Your task to perform on an android device: install app "Pandora - Music & Podcasts" Image 0: 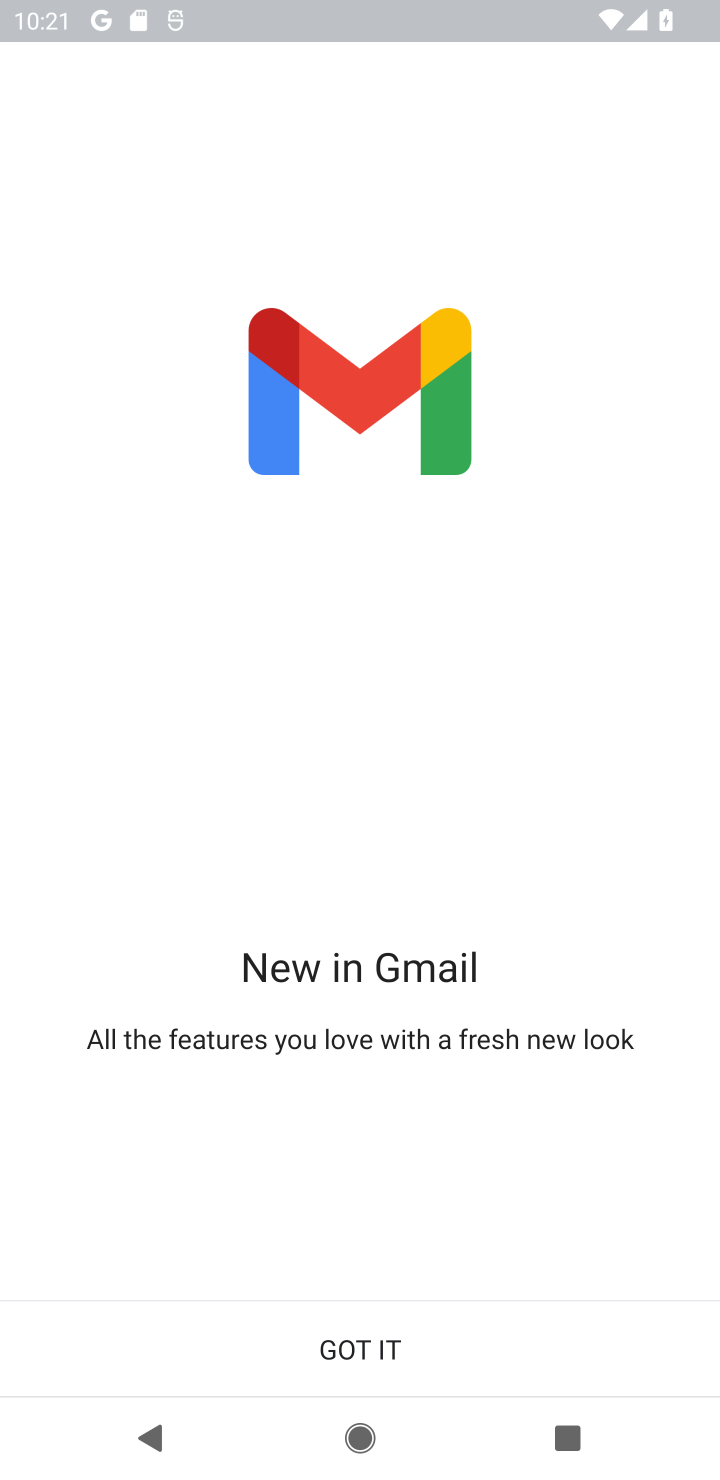
Step 0: press back button
Your task to perform on an android device: install app "Pandora - Music & Podcasts" Image 1: 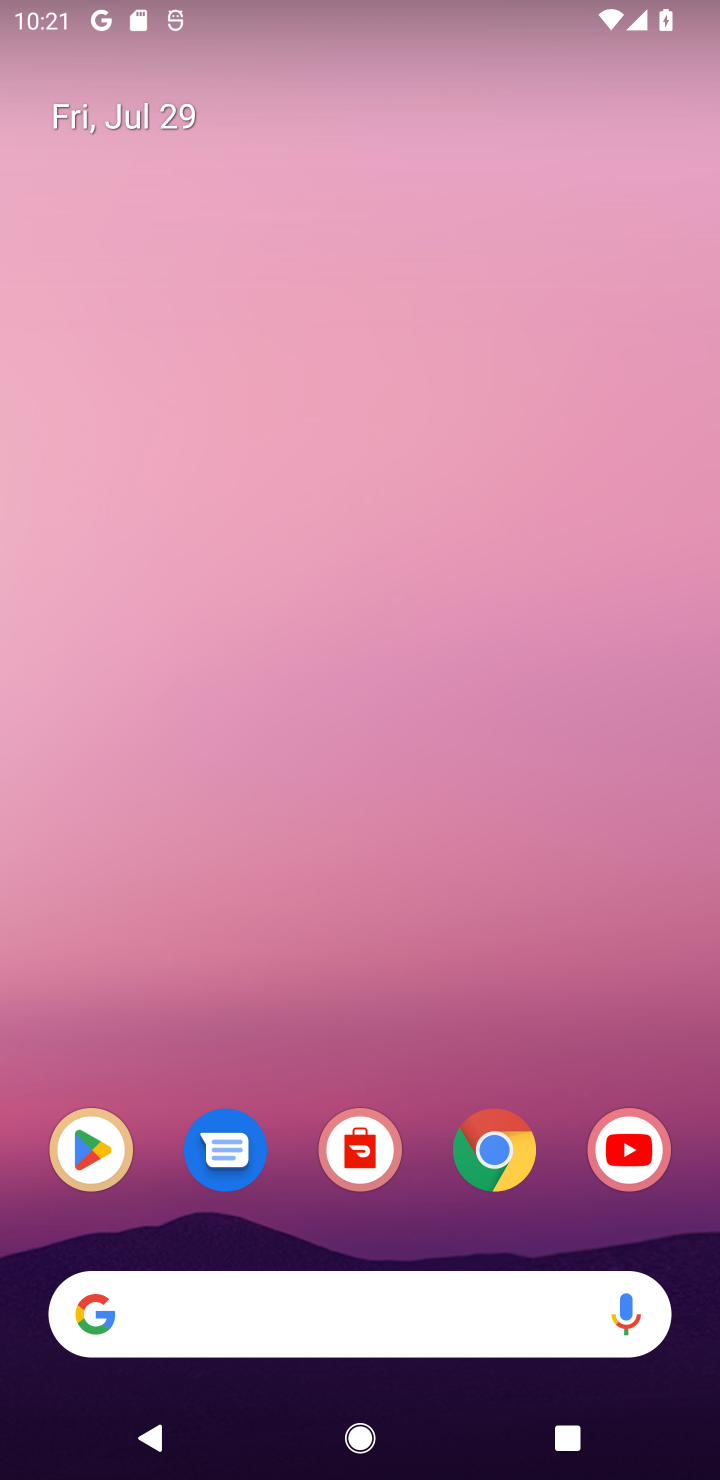
Step 1: press back button
Your task to perform on an android device: install app "Pandora - Music & Podcasts" Image 2: 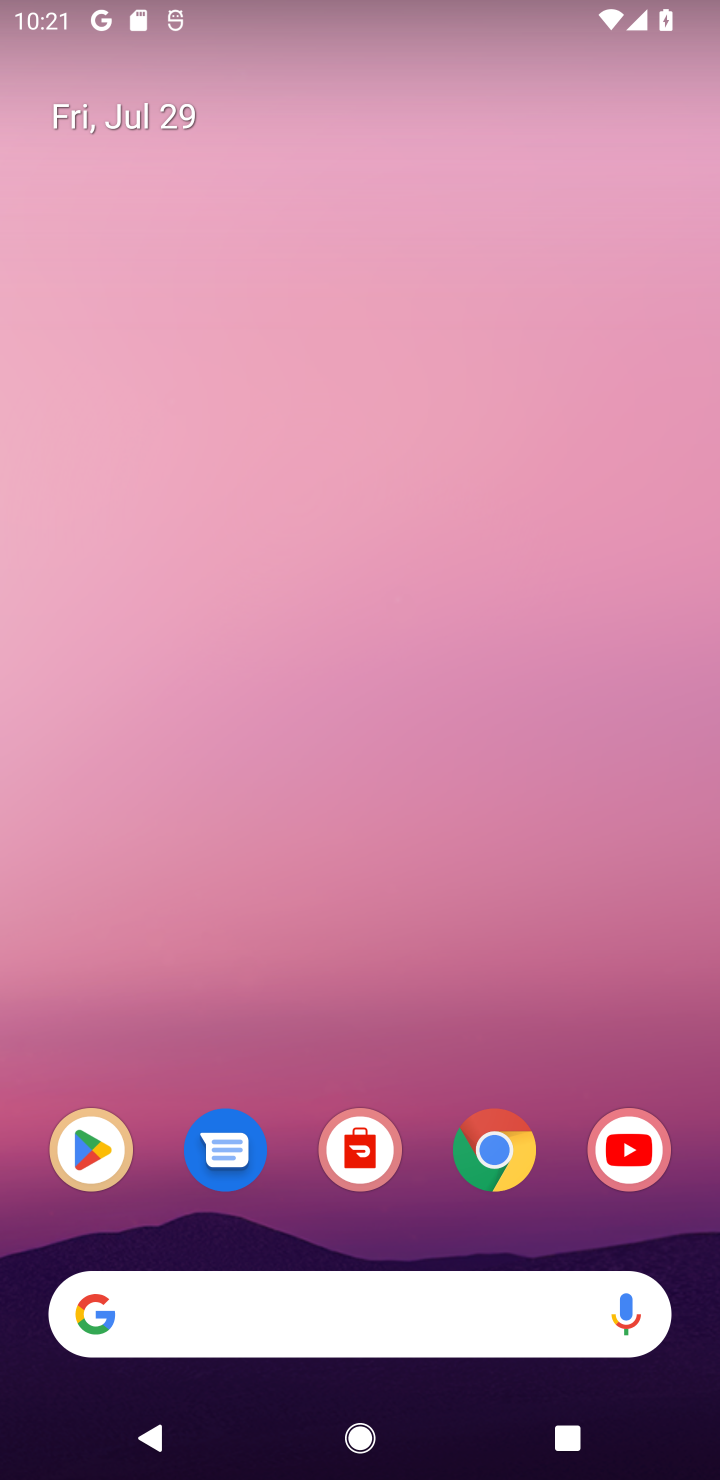
Step 2: click (85, 1174)
Your task to perform on an android device: install app "Pandora - Music & Podcasts" Image 3: 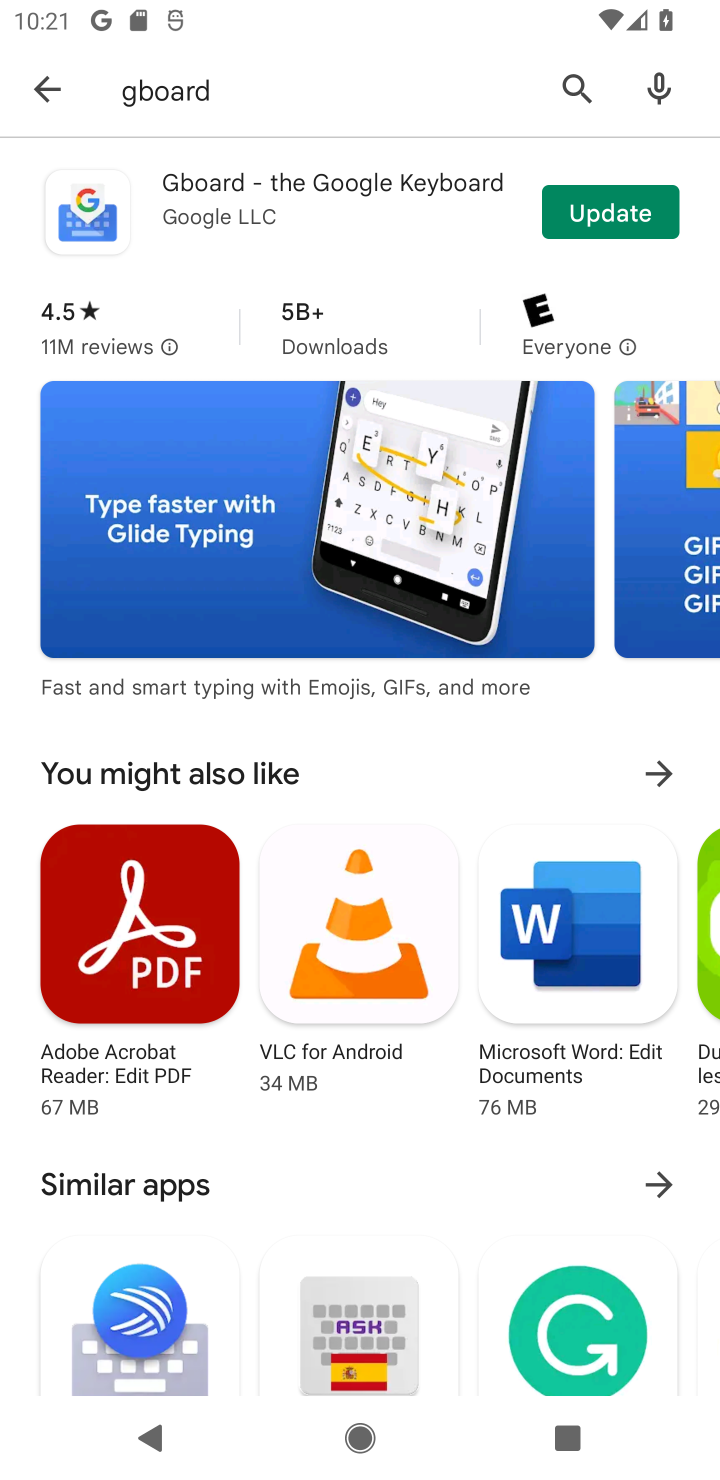
Step 3: click (572, 65)
Your task to perform on an android device: install app "Pandora - Music & Podcasts" Image 4: 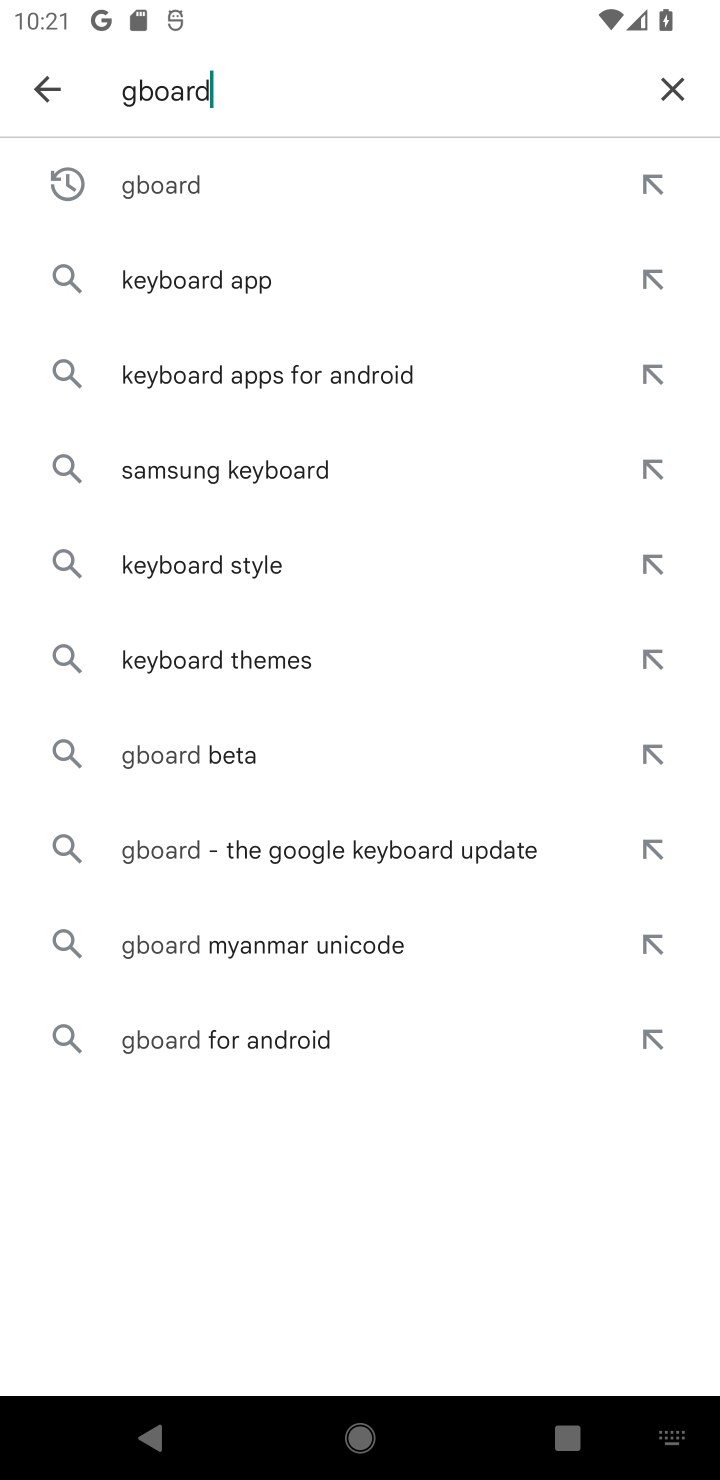
Step 4: click (685, 75)
Your task to perform on an android device: install app "Pandora - Music & Podcasts" Image 5: 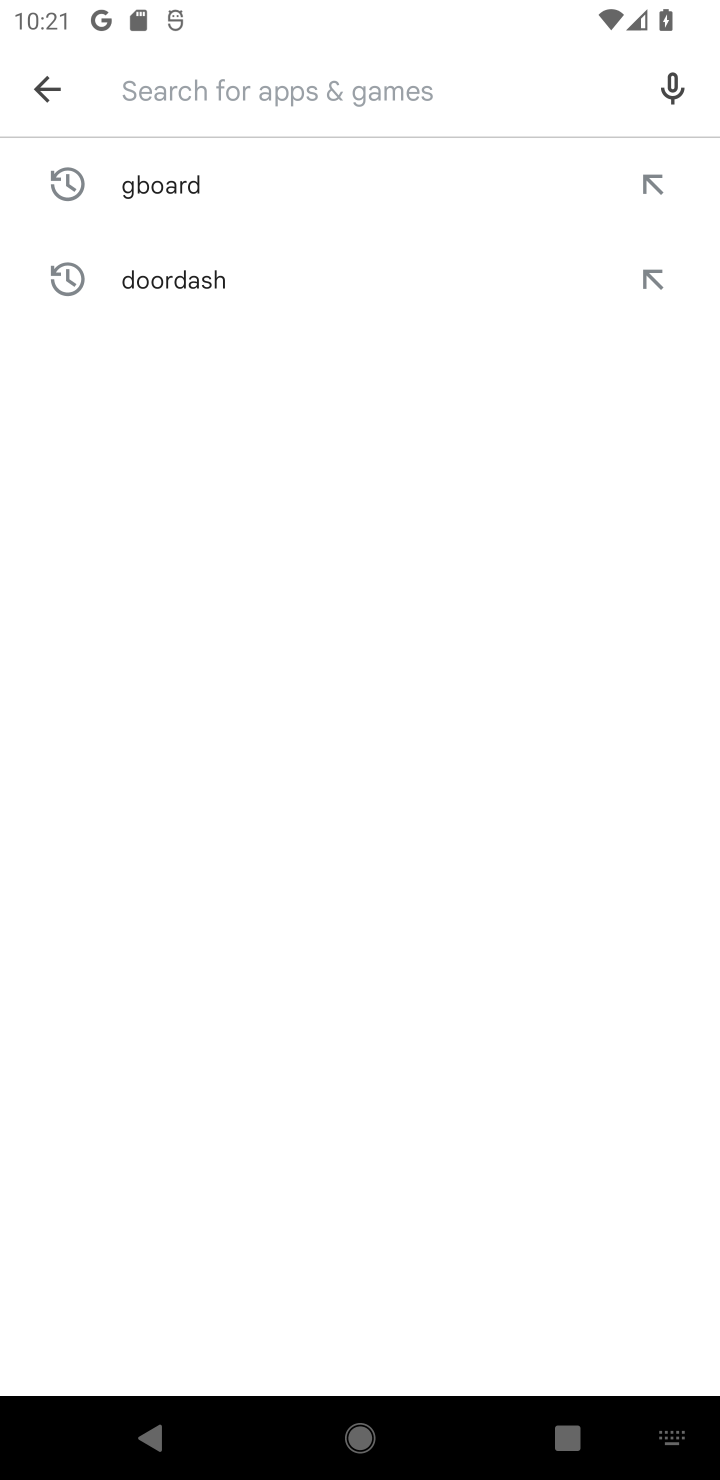
Step 5: click (184, 100)
Your task to perform on an android device: install app "Pandora - Music & Podcasts" Image 6: 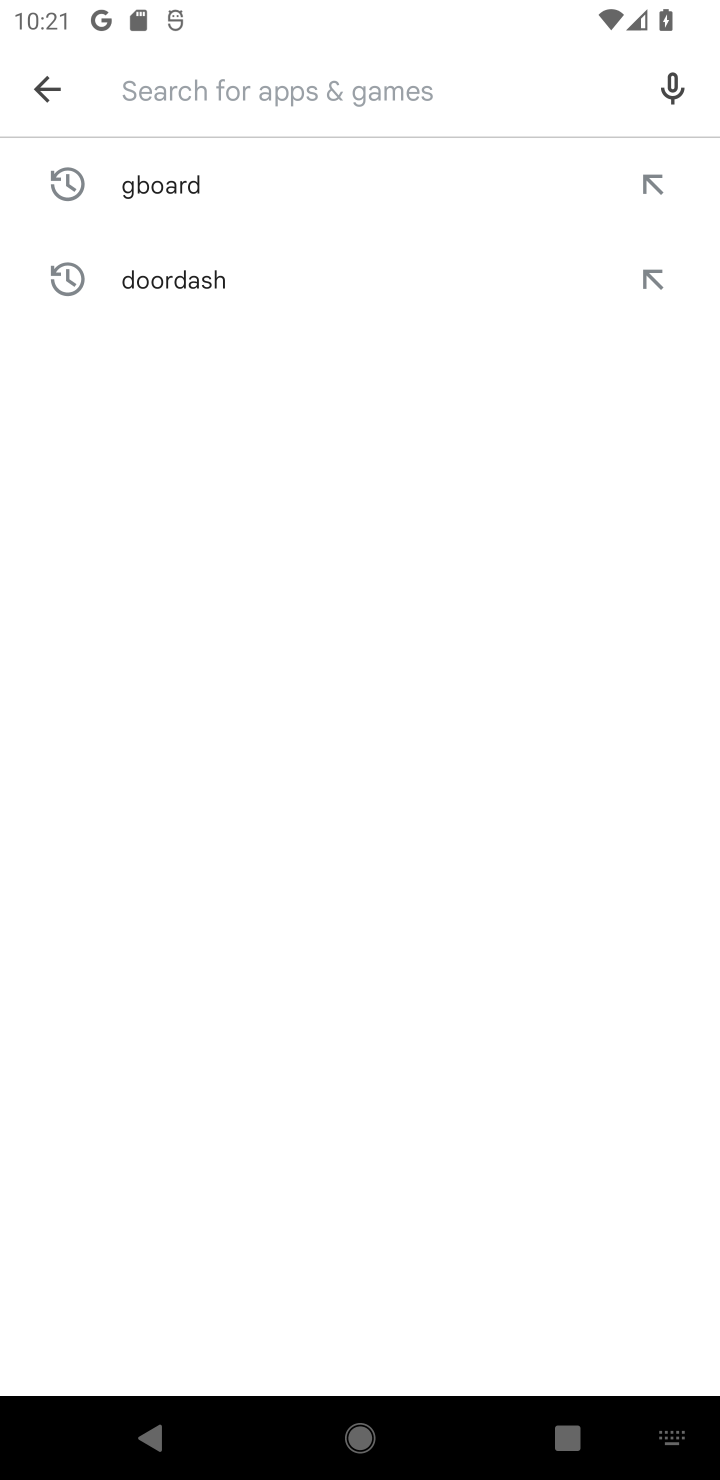
Step 6: type "pandora"
Your task to perform on an android device: install app "Pandora - Music & Podcasts" Image 7: 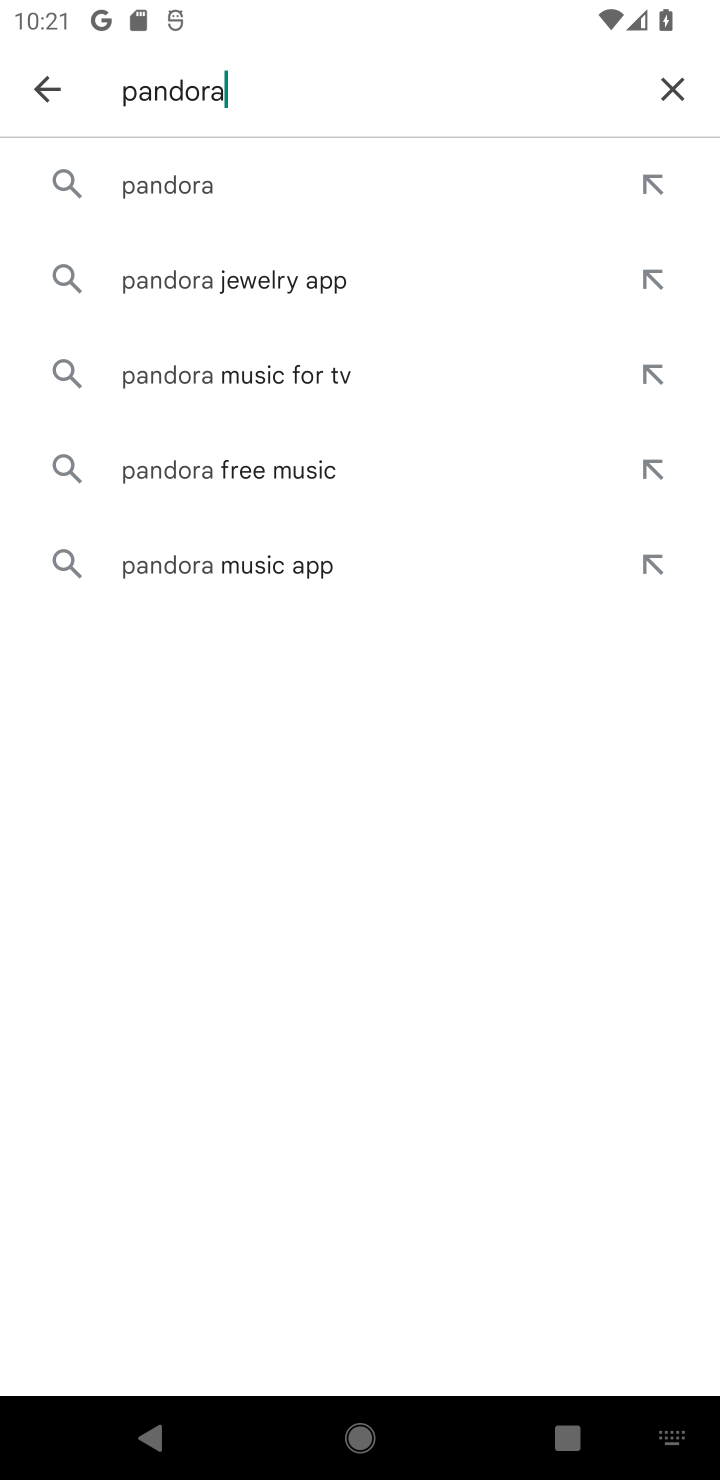
Step 7: click (172, 170)
Your task to perform on an android device: install app "Pandora - Music & Podcasts" Image 8: 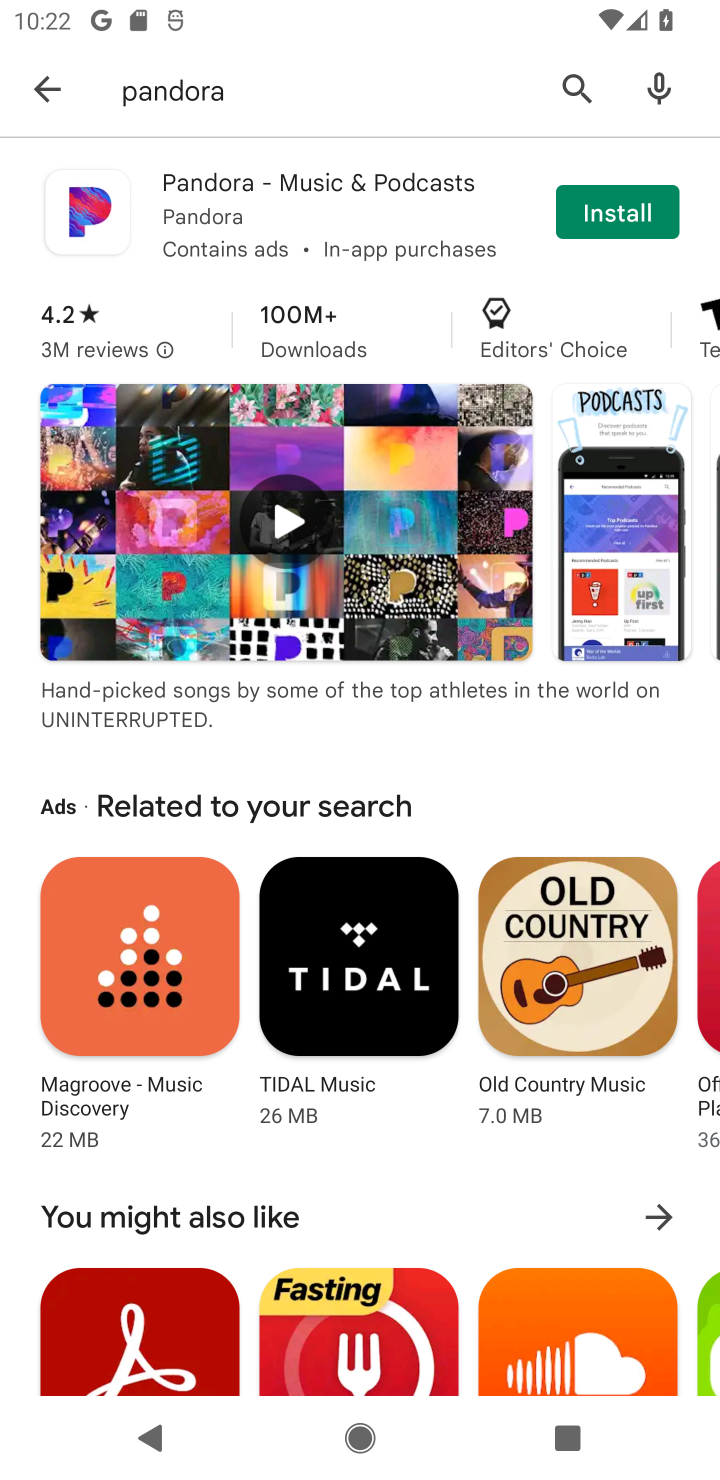
Step 8: click (575, 224)
Your task to perform on an android device: install app "Pandora - Music & Podcasts" Image 9: 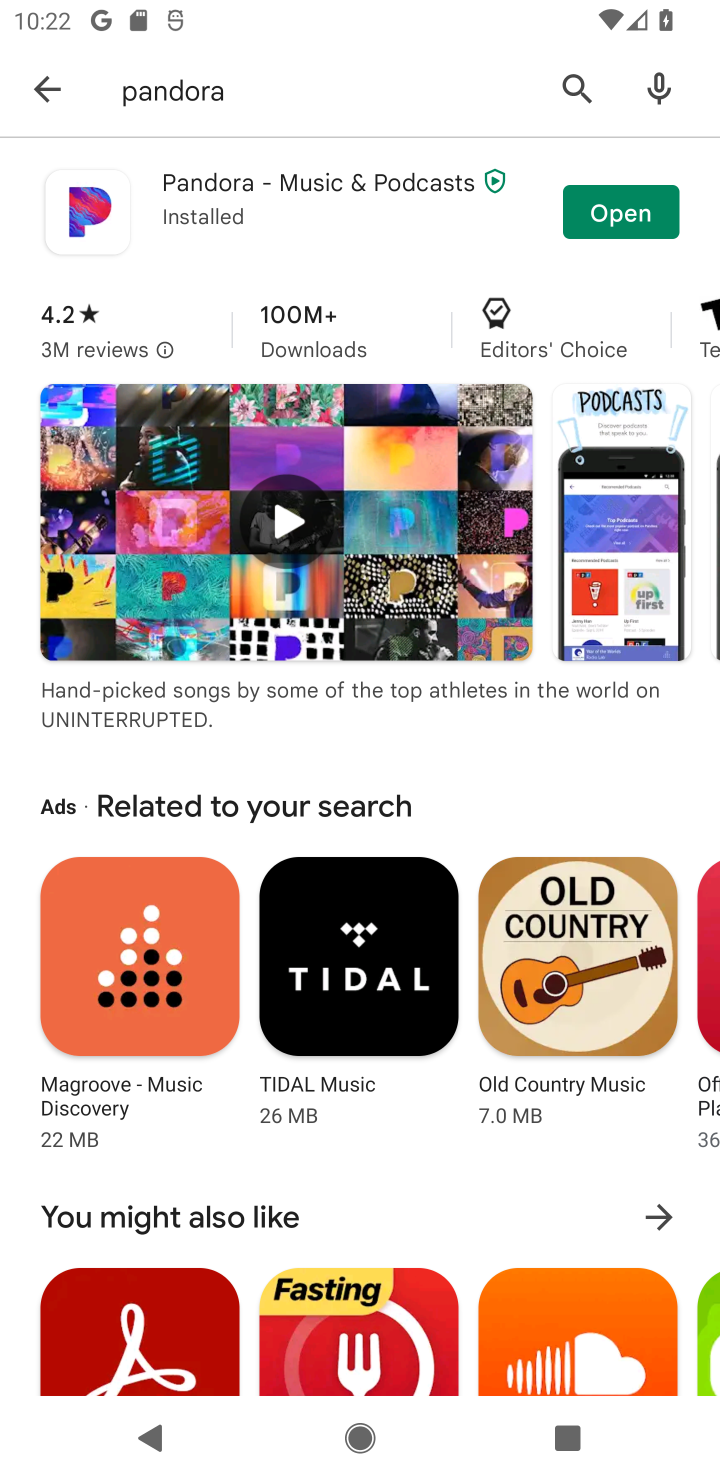
Step 9: task complete